Your task to perform on an android device: Search for the best rated wireless headphones on Amazon. Image 0: 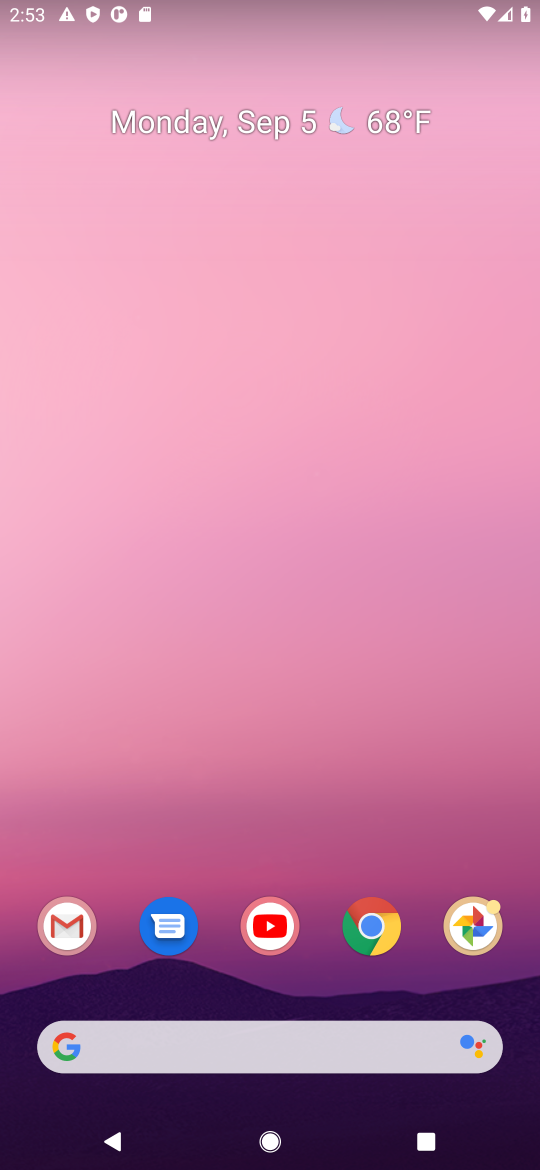
Step 0: click (378, 929)
Your task to perform on an android device: Search for the best rated wireless headphones on Amazon. Image 1: 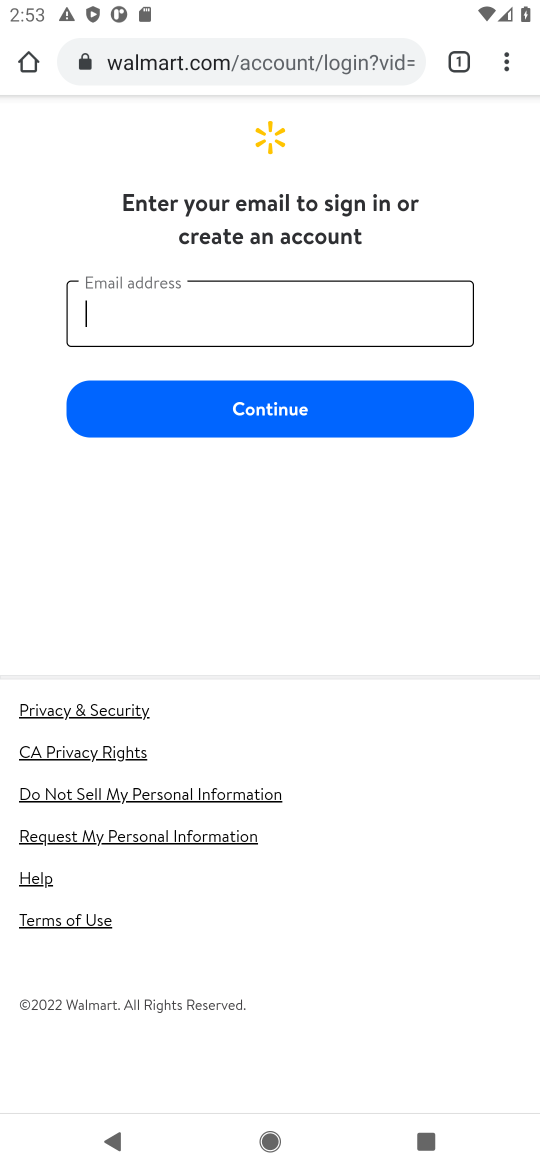
Step 1: click (308, 59)
Your task to perform on an android device: Search for the best rated wireless headphones on Amazon. Image 2: 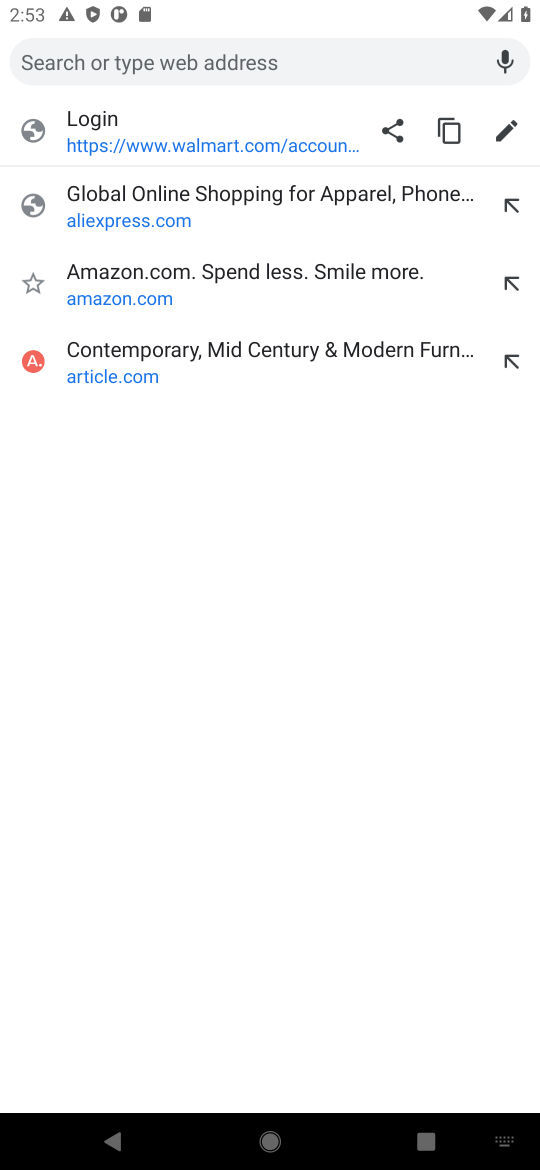
Step 2: type "amazon"
Your task to perform on an android device: Search for the best rated wireless headphones on Amazon. Image 3: 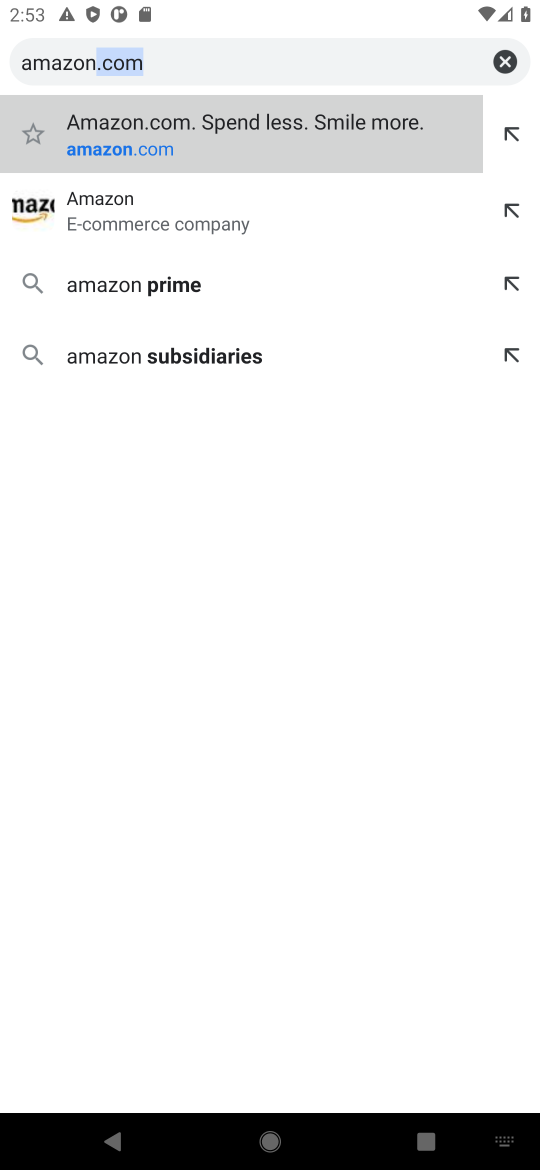
Step 3: click (141, 139)
Your task to perform on an android device: Search for the best rated wireless headphones on Amazon. Image 4: 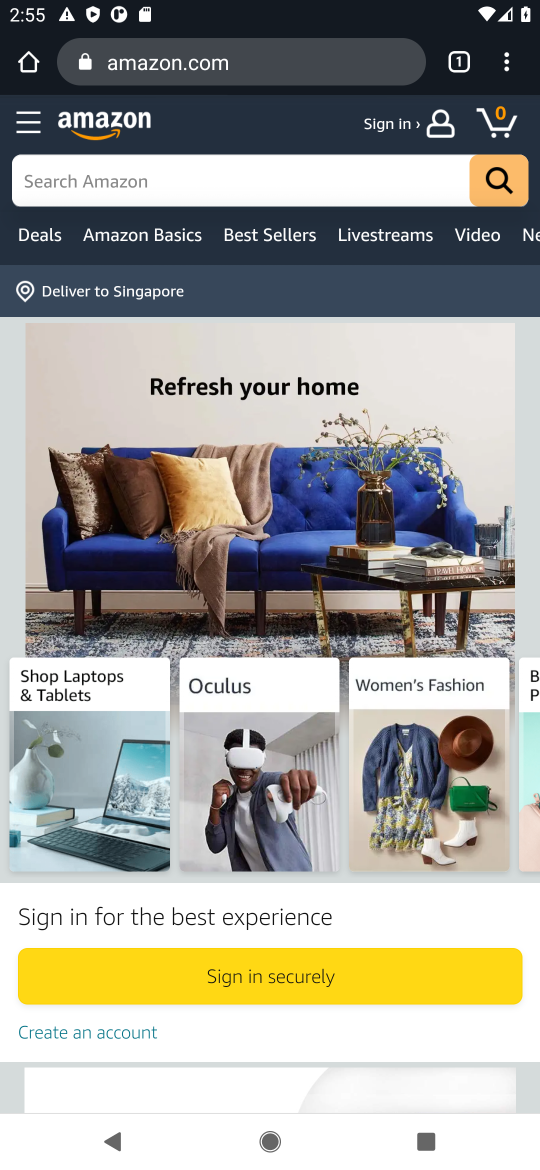
Step 4: click (143, 187)
Your task to perform on an android device: Search for the best rated wireless headphones on Amazon. Image 5: 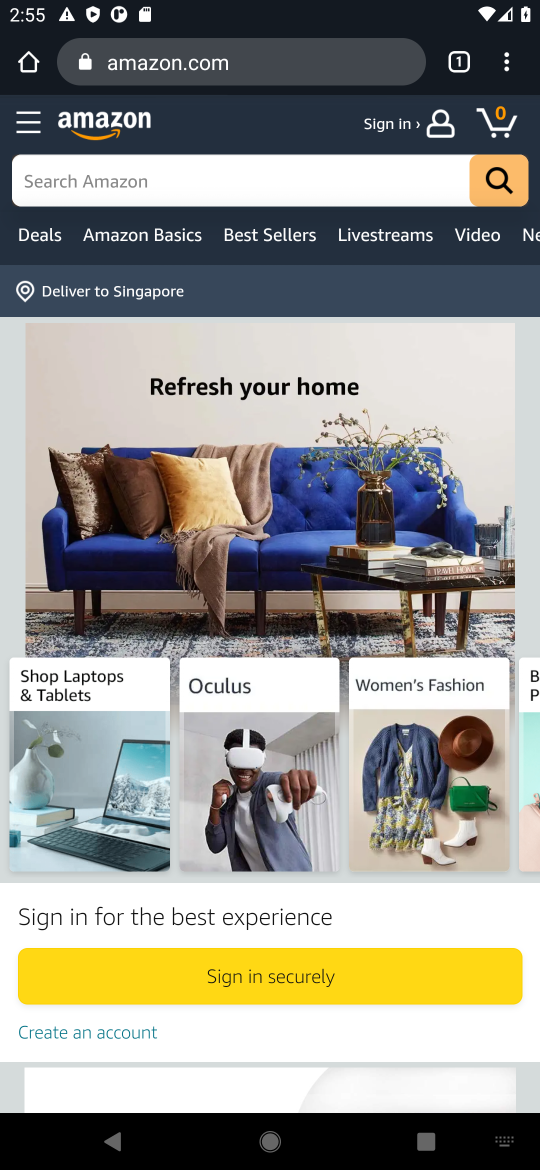
Step 5: click (136, 174)
Your task to perform on an android device: Search for the best rated wireless headphones on Amazon. Image 6: 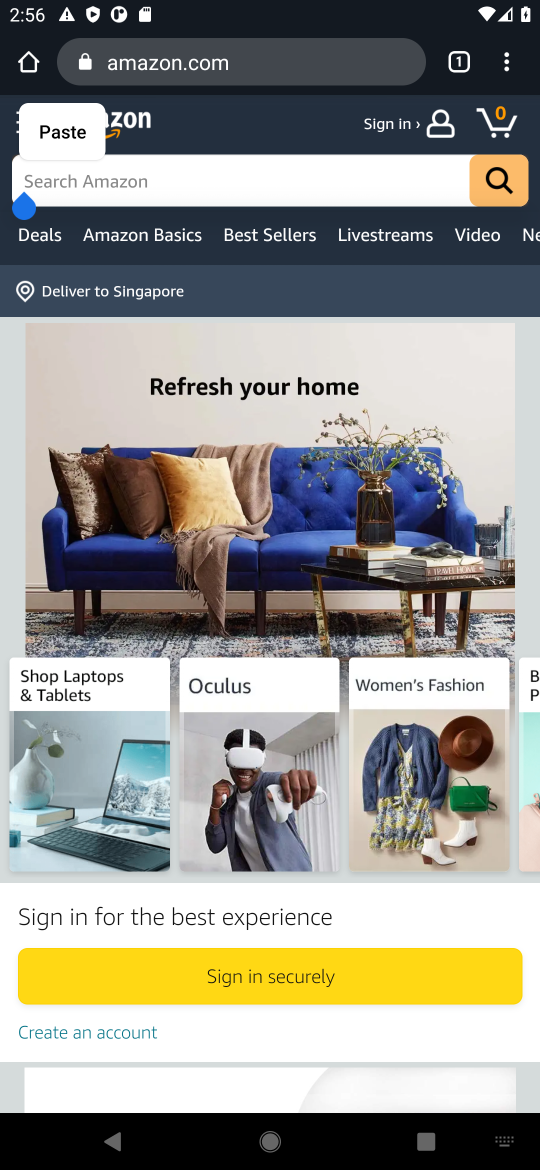
Step 6: type "wireless headphones"
Your task to perform on an android device: Search for the best rated wireless headphones on Amazon. Image 7: 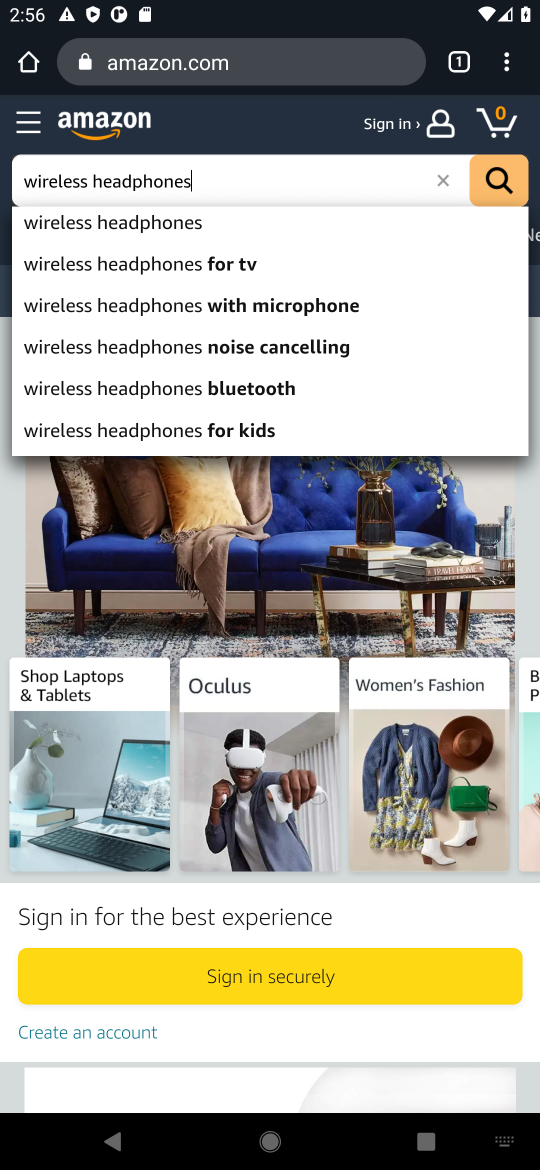
Step 7: click (227, 229)
Your task to perform on an android device: Search for the best rated wireless headphones on Amazon. Image 8: 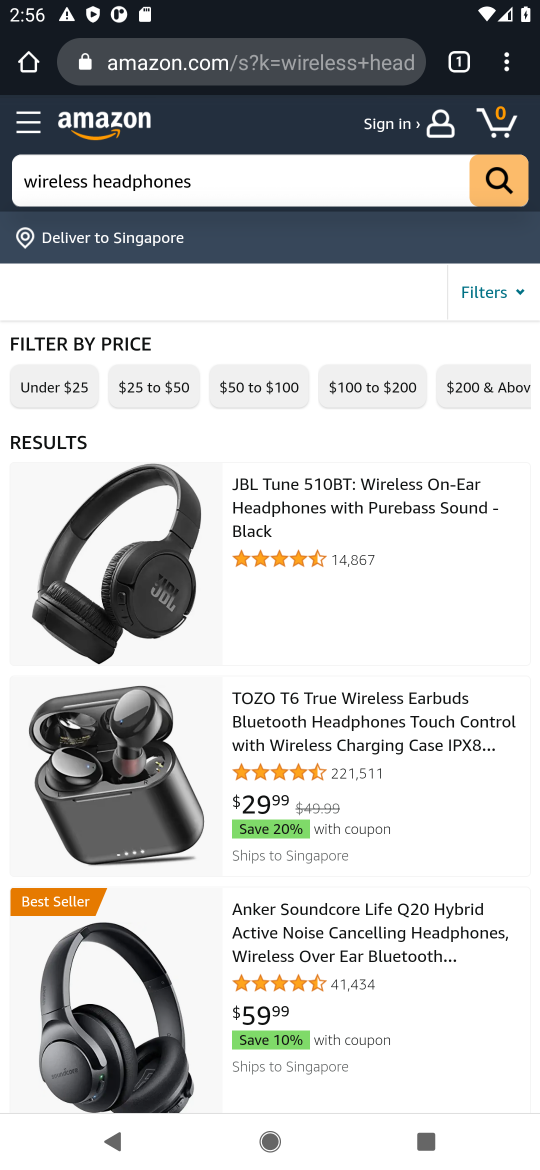
Step 8: click (227, 229)
Your task to perform on an android device: Search for the best rated wireless headphones on Amazon. Image 9: 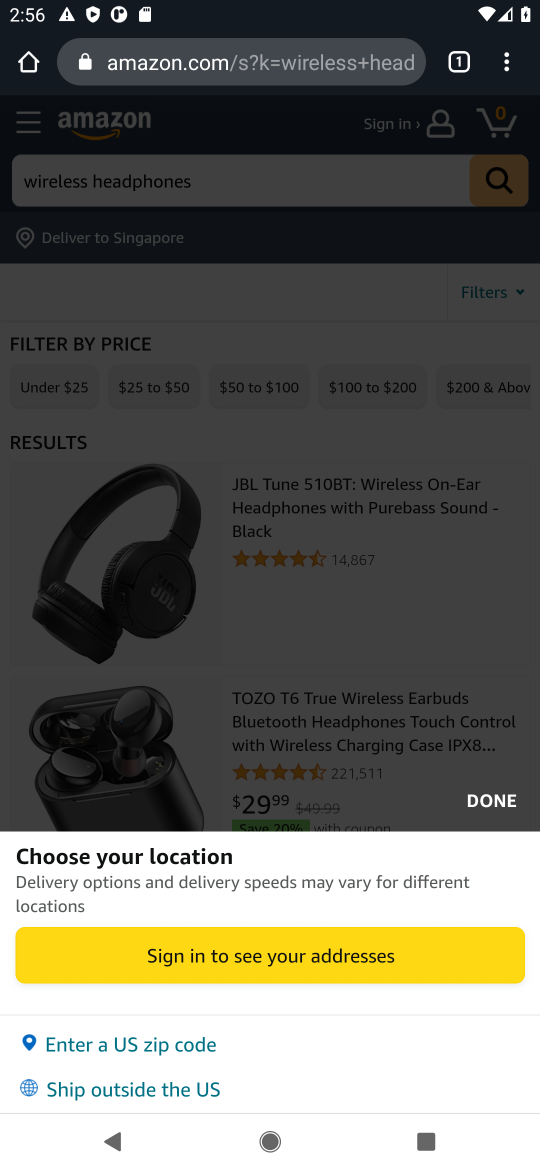
Step 9: task complete